Your task to perform on an android device: turn off airplane mode Image 0: 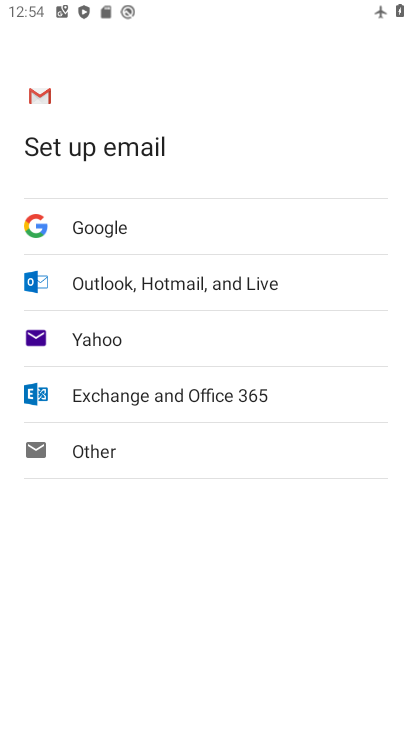
Step 0: press home button
Your task to perform on an android device: turn off airplane mode Image 1: 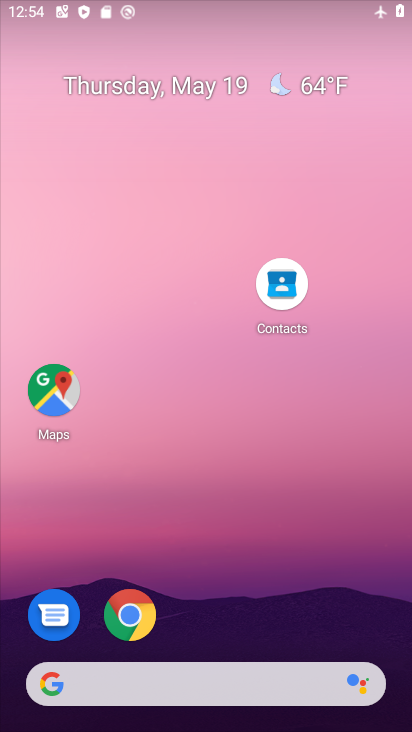
Step 1: drag from (234, 594) to (220, 0)
Your task to perform on an android device: turn off airplane mode Image 2: 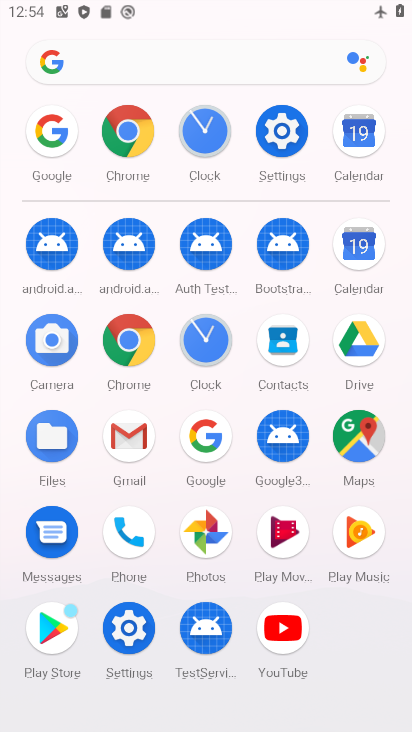
Step 2: click (291, 137)
Your task to perform on an android device: turn off airplane mode Image 3: 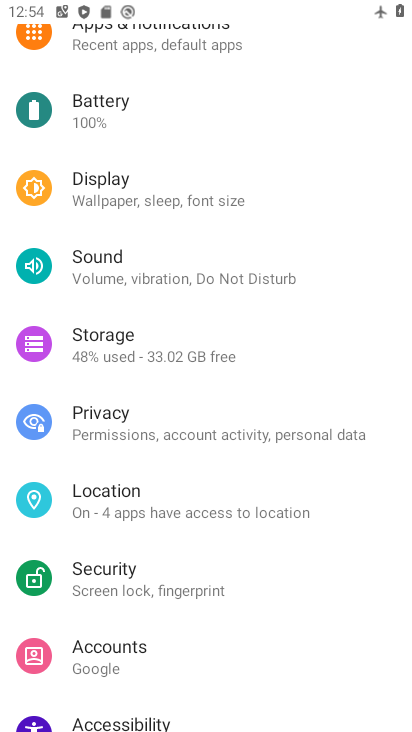
Step 3: drag from (290, 205) to (280, 432)
Your task to perform on an android device: turn off airplane mode Image 4: 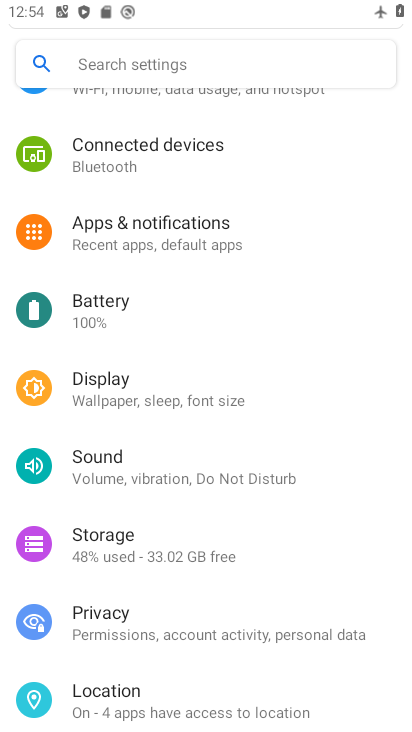
Step 4: drag from (301, 238) to (301, 545)
Your task to perform on an android device: turn off airplane mode Image 5: 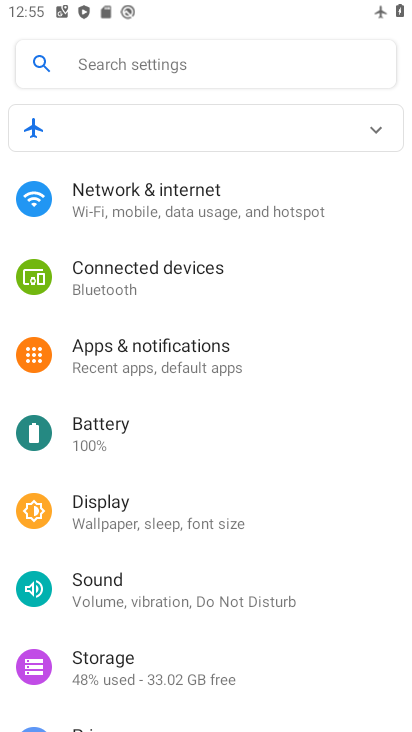
Step 5: click (267, 203)
Your task to perform on an android device: turn off airplane mode Image 6: 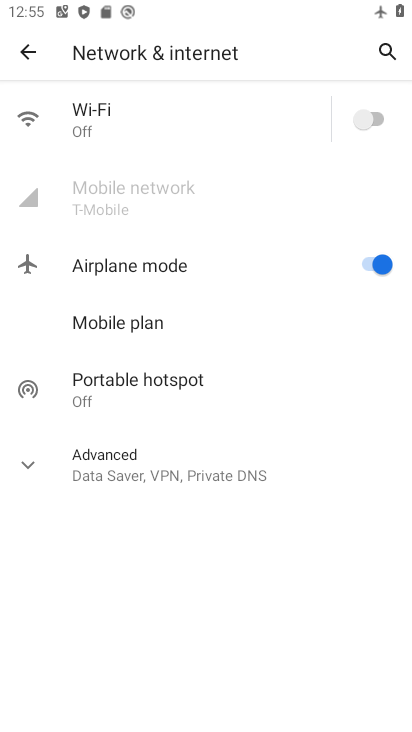
Step 6: click (374, 257)
Your task to perform on an android device: turn off airplane mode Image 7: 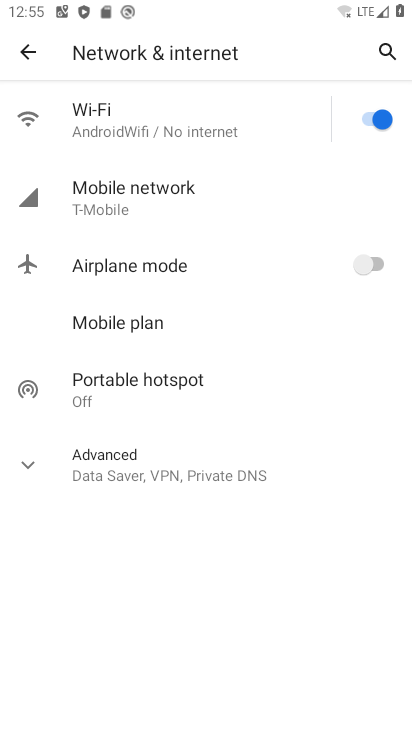
Step 7: task complete